Your task to perform on an android device: Is it going to rain today? Image 0: 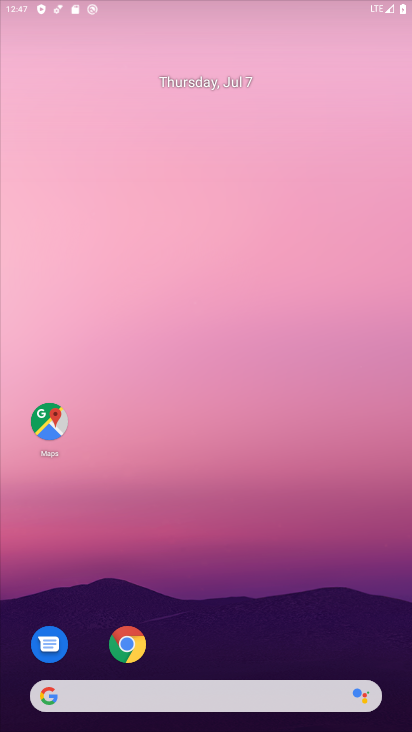
Step 0: drag from (399, 677) to (394, 62)
Your task to perform on an android device: Is it going to rain today? Image 1: 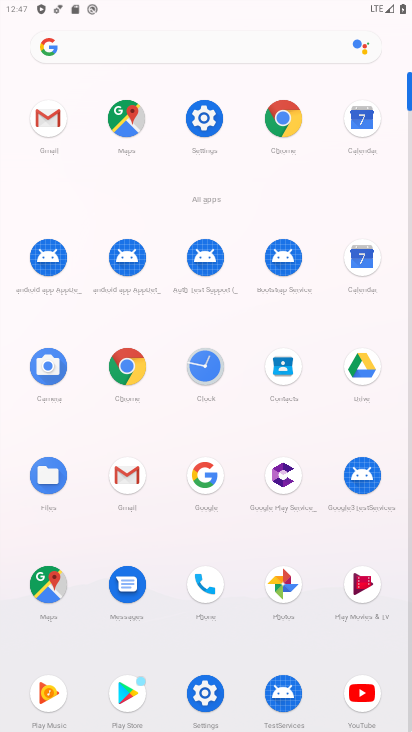
Step 1: click (190, 481)
Your task to perform on an android device: Is it going to rain today? Image 2: 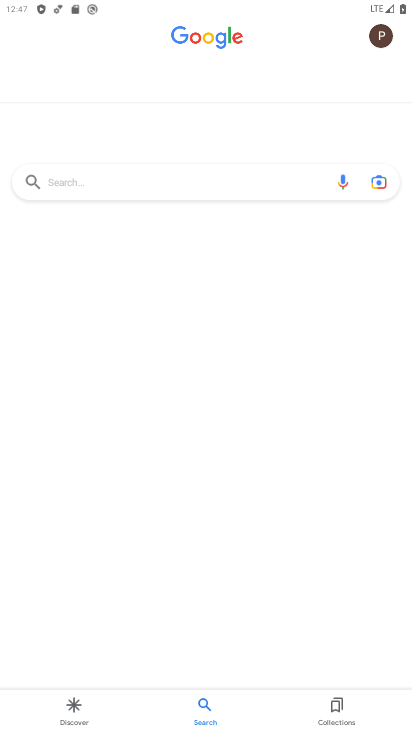
Step 2: task complete